Your task to perform on an android device: What's on my calendar today? Image 0: 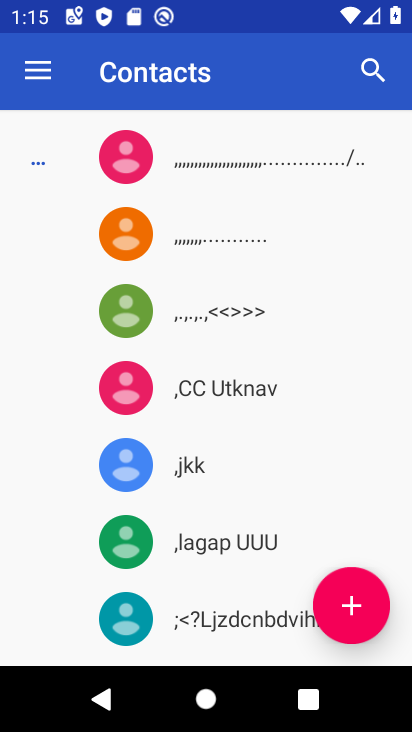
Step 0: press home button
Your task to perform on an android device: What's on my calendar today? Image 1: 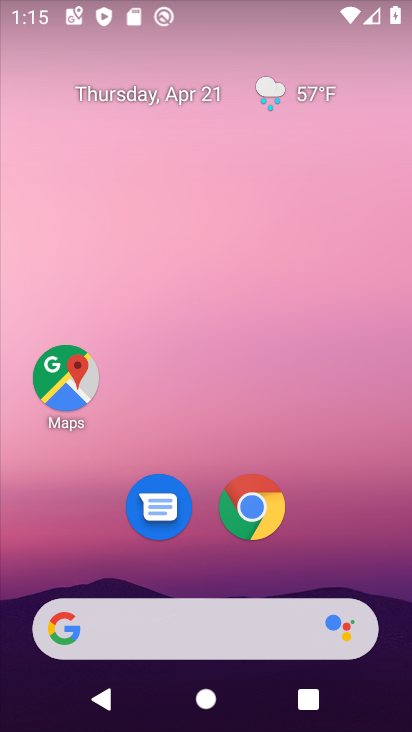
Step 1: drag from (184, 437) to (216, 31)
Your task to perform on an android device: What's on my calendar today? Image 2: 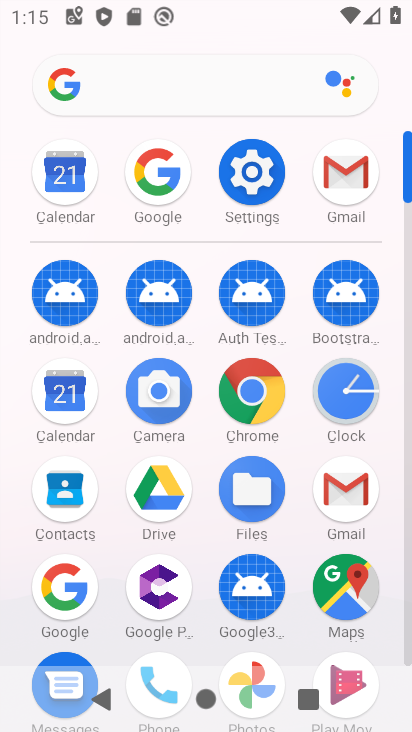
Step 2: click (68, 393)
Your task to perform on an android device: What's on my calendar today? Image 3: 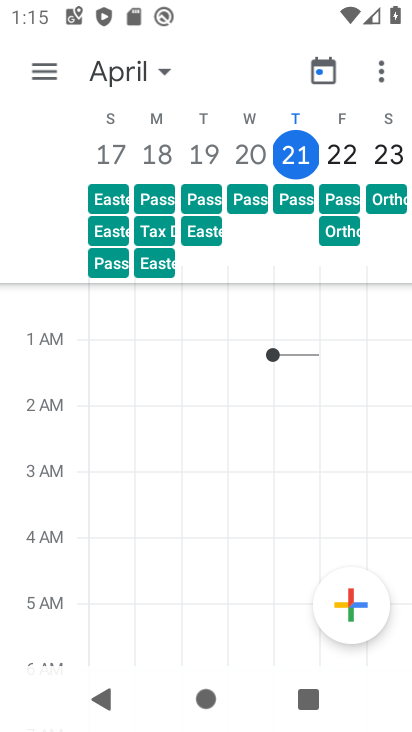
Step 3: click (325, 79)
Your task to perform on an android device: What's on my calendar today? Image 4: 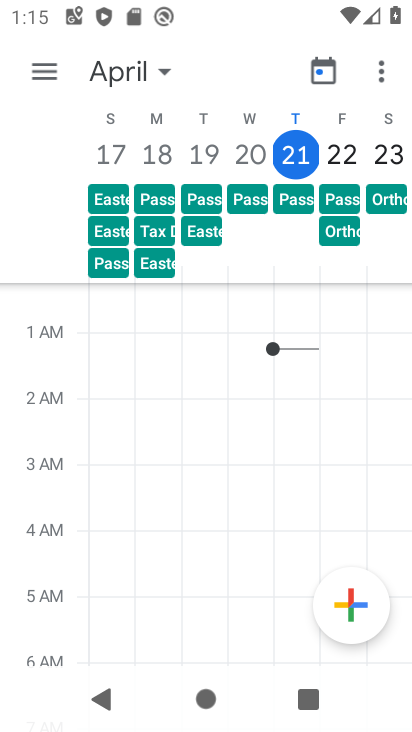
Step 4: click (166, 75)
Your task to perform on an android device: What's on my calendar today? Image 5: 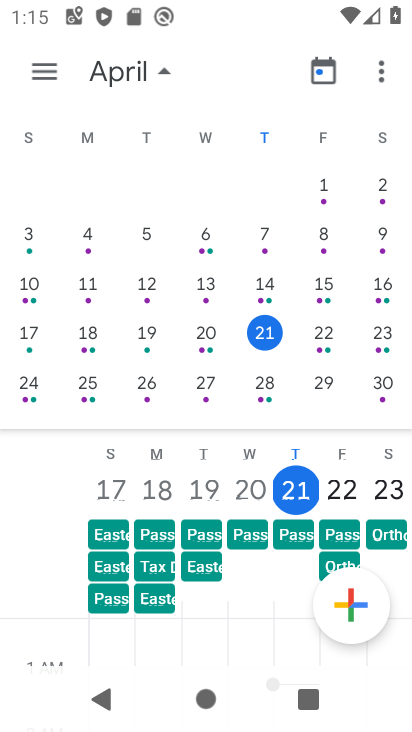
Step 5: click (41, 69)
Your task to perform on an android device: What's on my calendar today? Image 6: 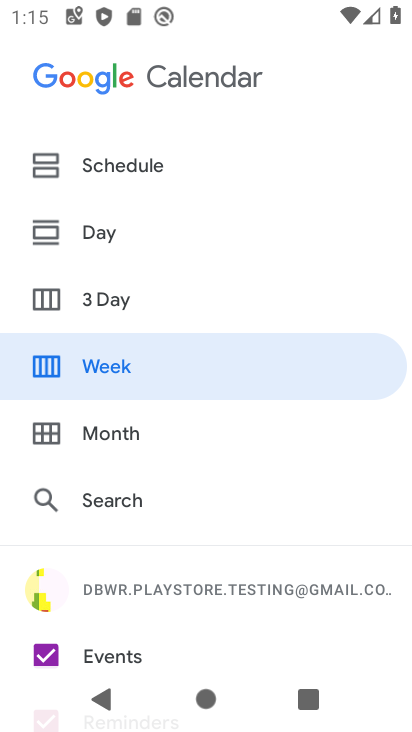
Step 6: click (135, 164)
Your task to perform on an android device: What's on my calendar today? Image 7: 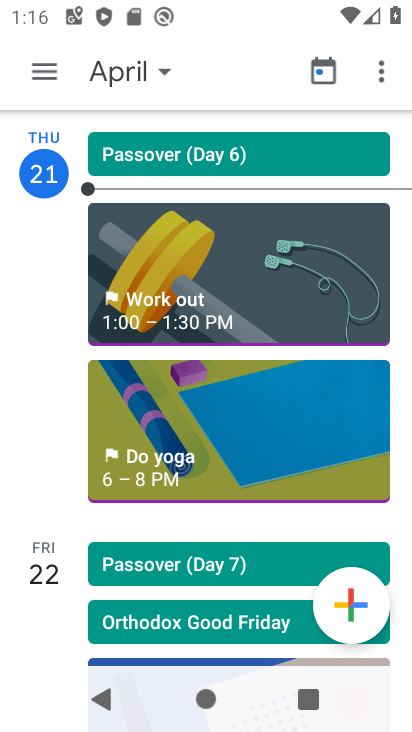
Step 7: task complete